Your task to perform on an android device: install app "Google Translate" Image 0: 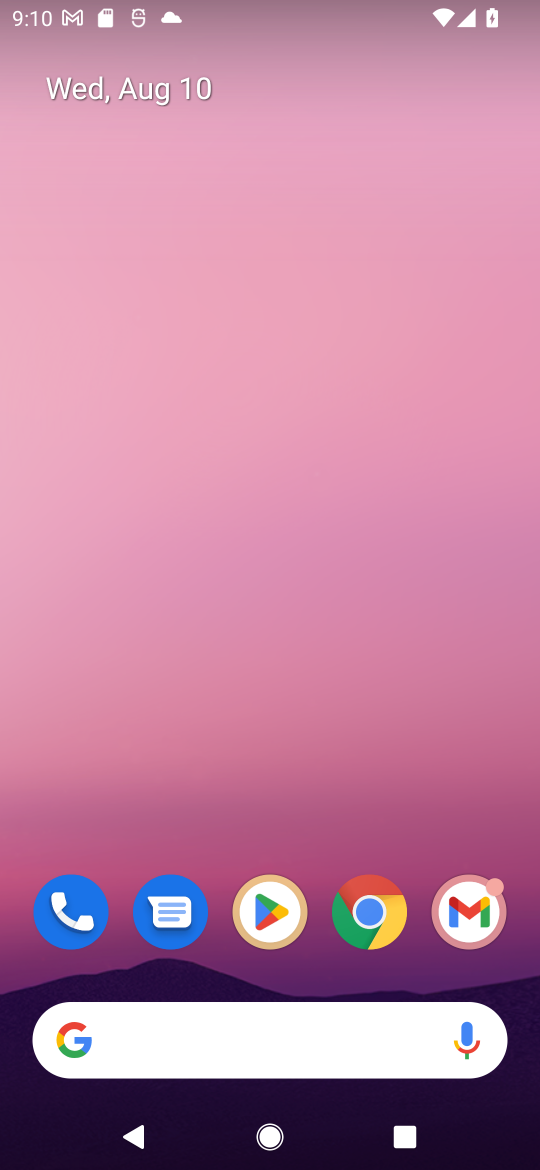
Step 0: drag from (403, 988) to (207, 15)
Your task to perform on an android device: install app "Google Translate" Image 1: 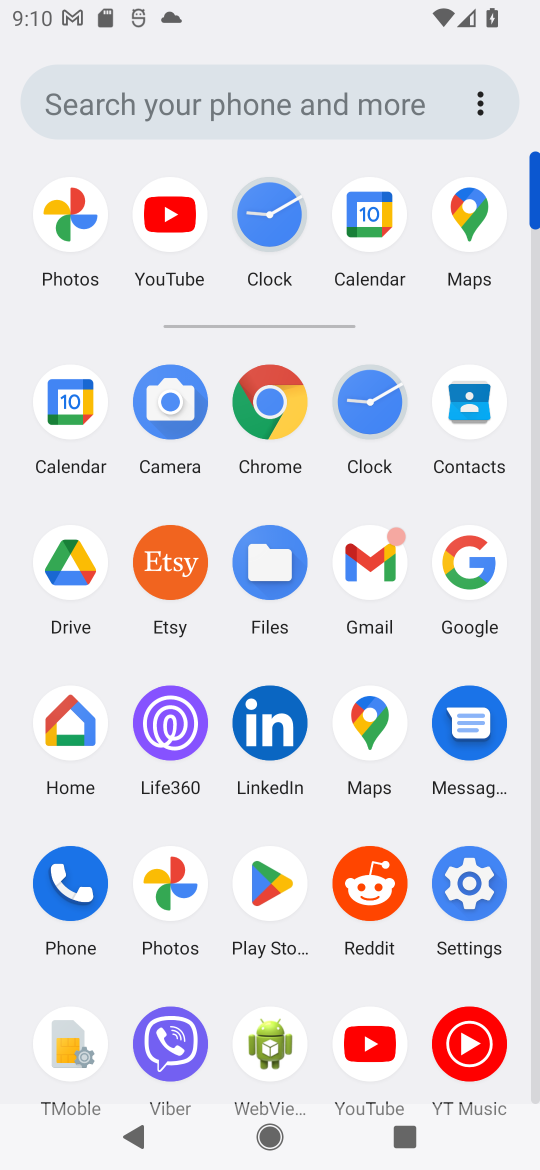
Step 1: click (278, 891)
Your task to perform on an android device: install app "Google Translate" Image 2: 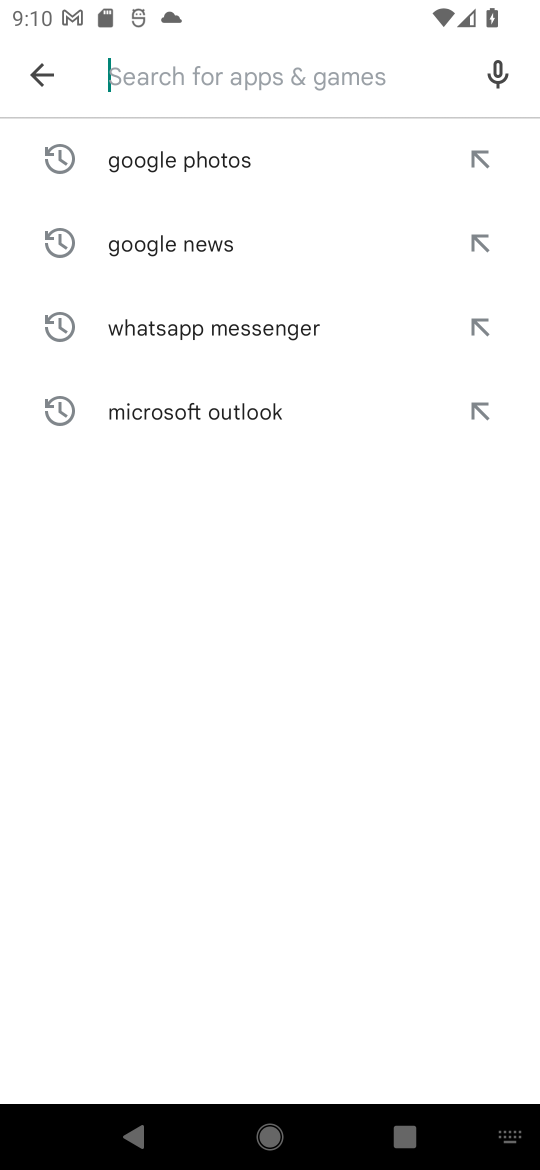
Step 2: type "Google Translate"
Your task to perform on an android device: install app "Google Translate" Image 3: 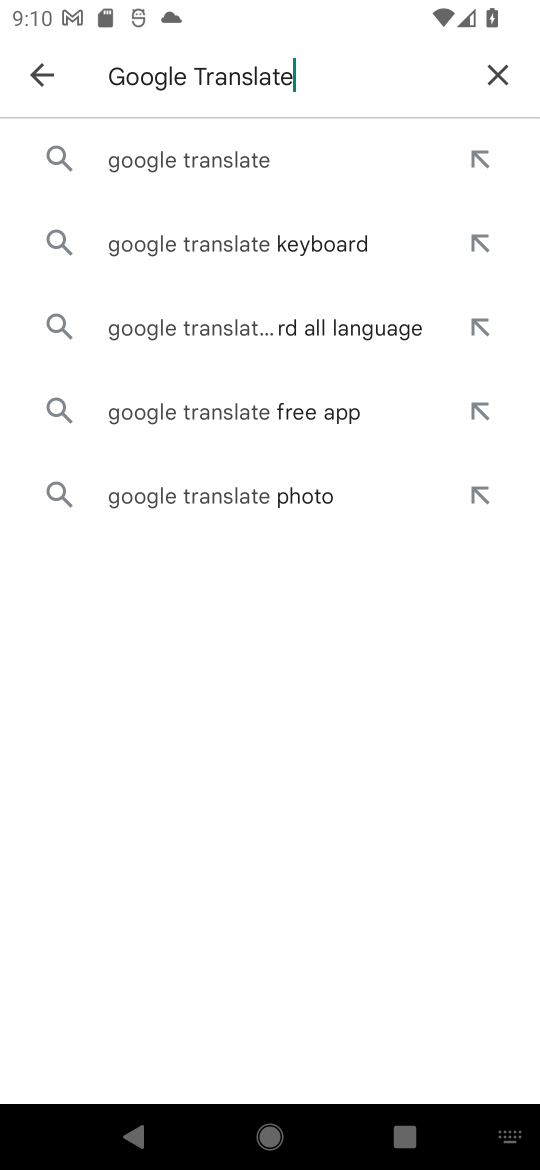
Step 3: click (184, 170)
Your task to perform on an android device: install app "Google Translate" Image 4: 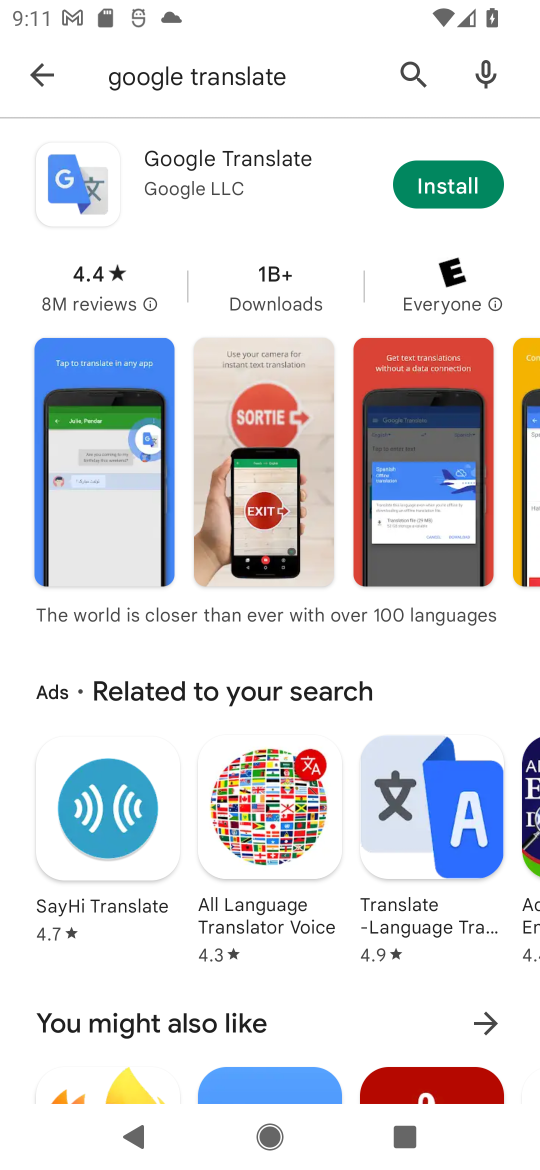
Step 4: click (446, 191)
Your task to perform on an android device: install app "Google Translate" Image 5: 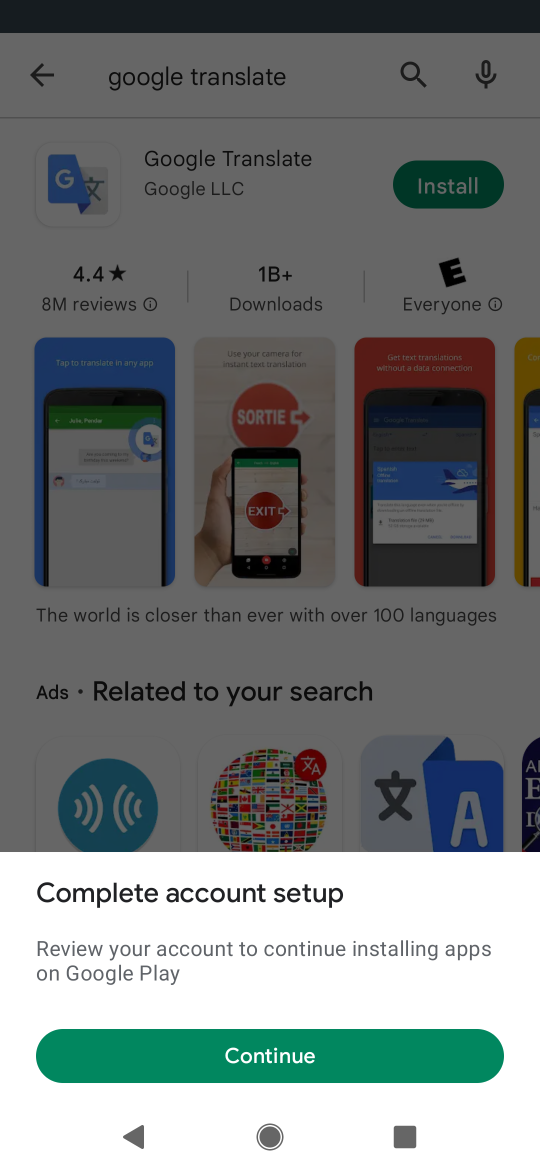
Step 5: click (271, 1050)
Your task to perform on an android device: install app "Google Translate" Image 6: 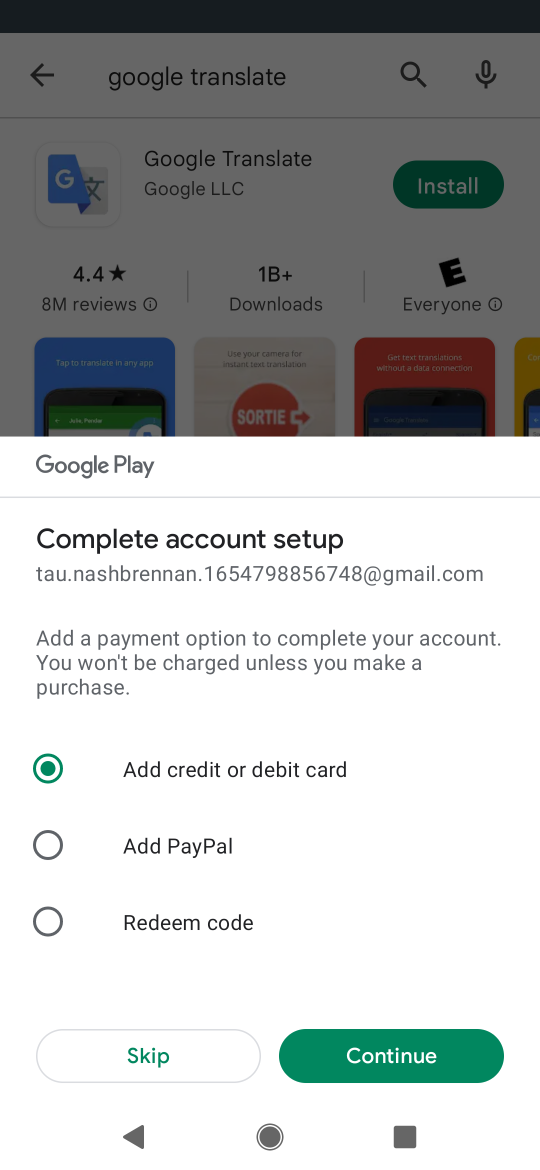
Step 6: click (168, 1050)
Your task to perform on an android device: install app "Google Translate" Image 7: 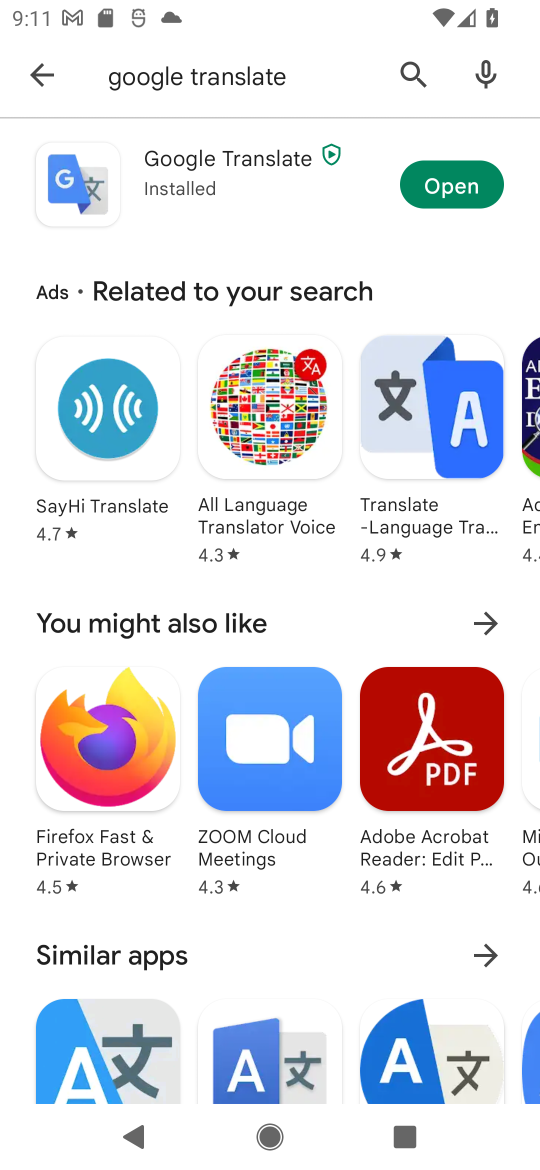
Step 7: task complete